Your task to perform on an android device: Go to Reddit.com Image 0: 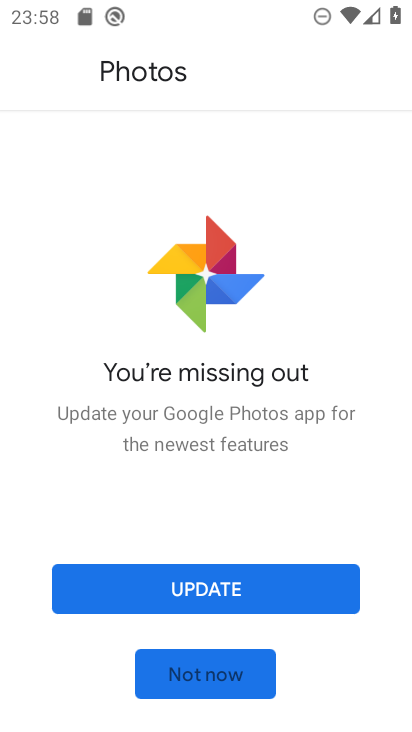
Step 0: press home button
Your task to perform on an android device: Go to Reddit.com Image 1: 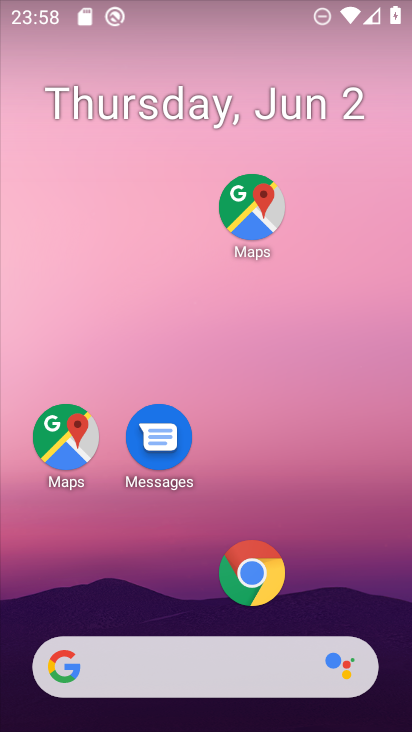
Step 1: click (255, 577)
Your task to perform on an android device: Go to Reddit.com Image 2: 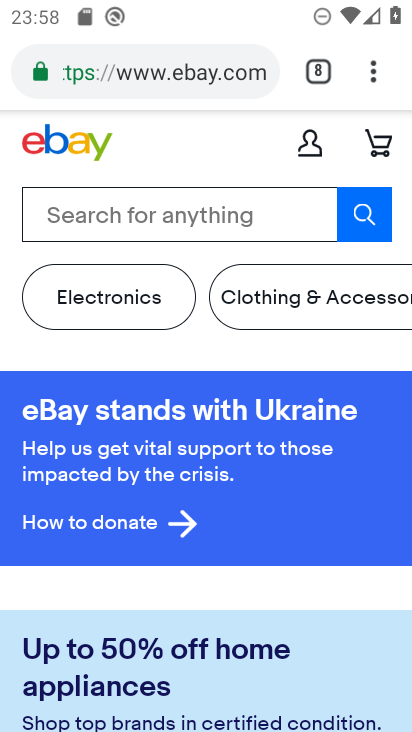
Step 2: click (260, 64)
Your task to perform on an android device: Go to Reddit.com Image 3: 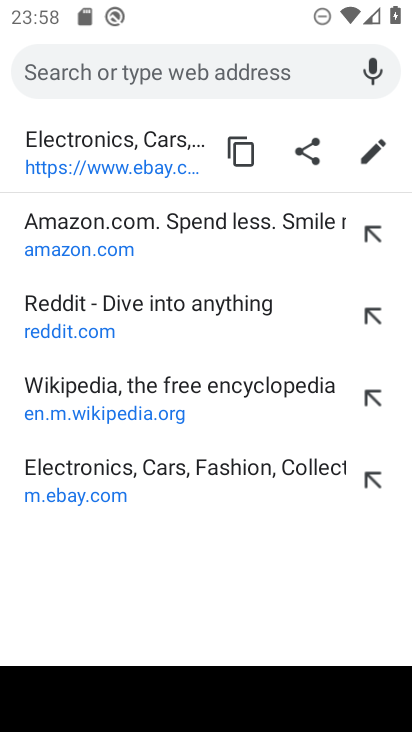
Step 3: click (173, 295)
Your task to perform on an android device: Go to Reddit.com Image 4: 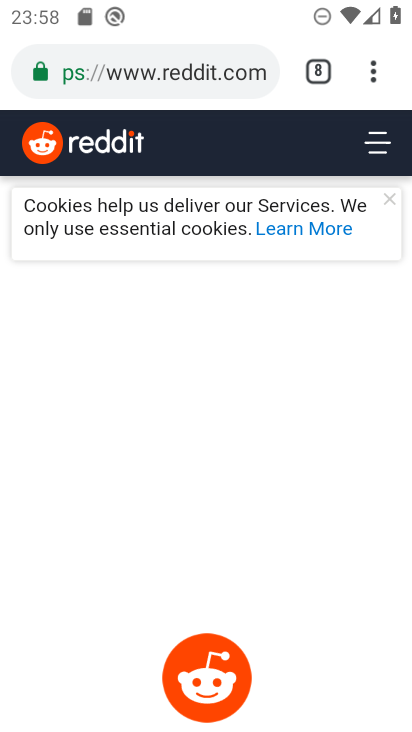
Step 4: task complete